Your task to perform on an android device: Open calendar and show me the fourth week of next month Image 0: 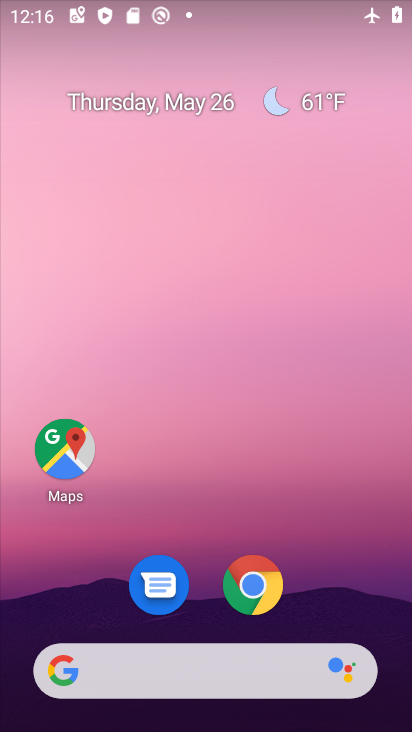
Step 0: drag from (265, 507) to (318, 53)
Your task to perform on an android device: Open calendar and show me the fourth week of next month Image 1: 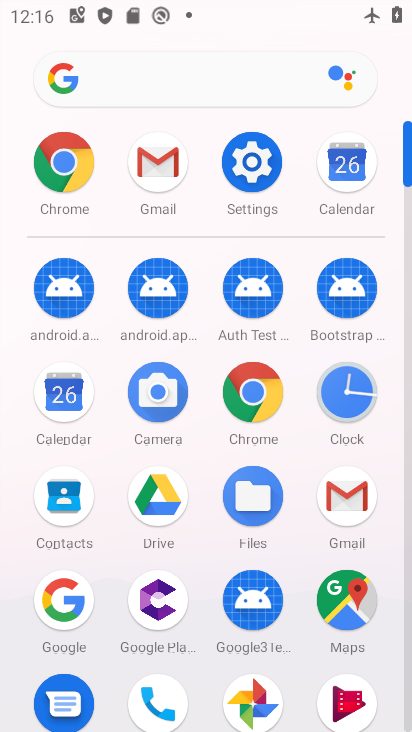
Step 1: click (344, 168)
Your task to perform on an android device: Open calendar and show me the fourth week of next month Image 2: 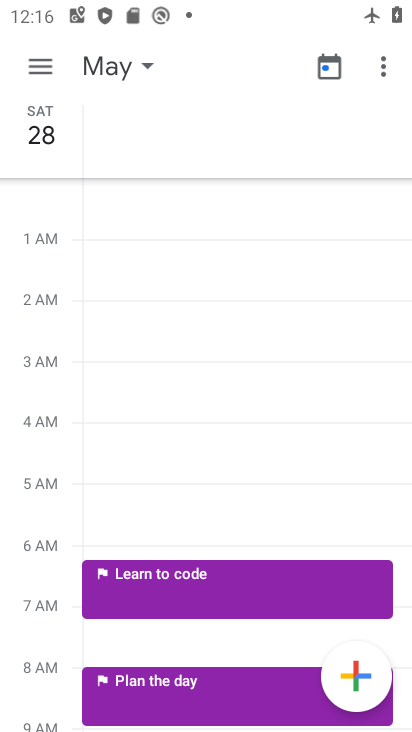
Step 2: click (46, 61)
Your task to perform on an android device: Open calendar and show me the fourth week of next month Image 3: 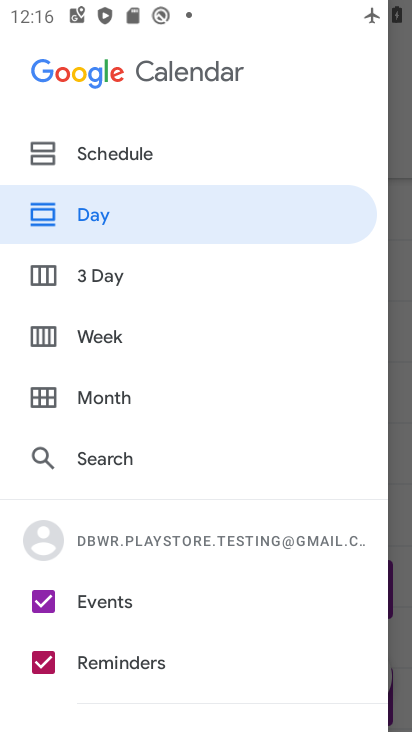
Step 3: click (100, 381)
Your task to perform on an android device: Open calendar and show me the fourth week of next month Image 4: 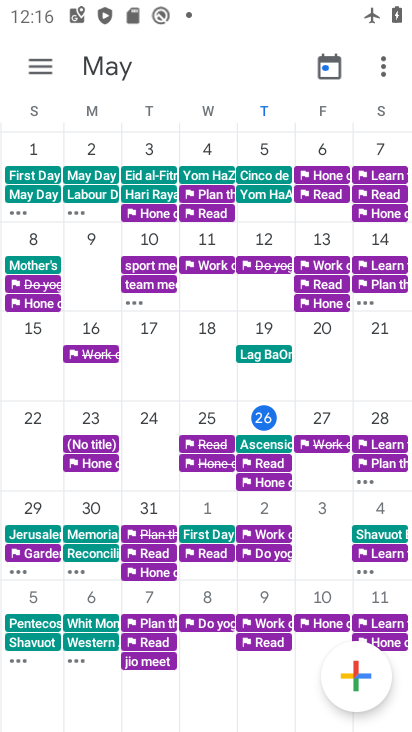
Step 4: drag from (361, 377) to (6, 329)
Your task to perform on an android device: Open calendar and show me the fourth week of next month Image 5: 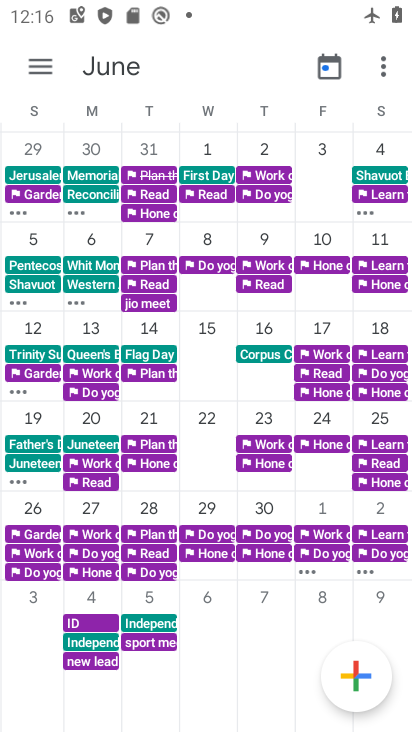
Step 5: click (39, 504)
Your task to perform on an android device: Open calendar and show me the fourth week of next month Image 6: 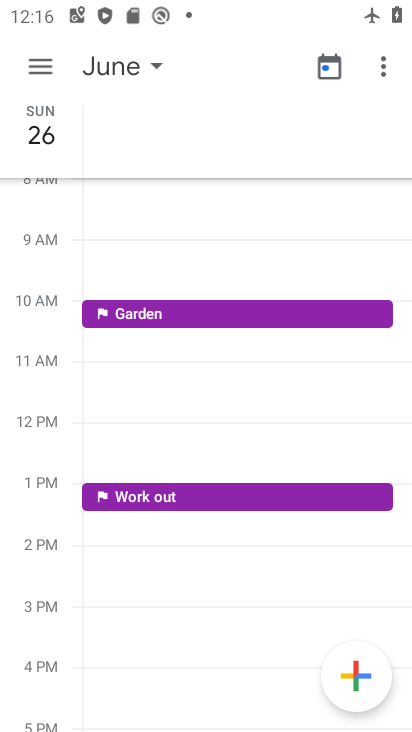
Step 6: click (33, 62)
Your task to perform on an android device: Open calendar and show me the fourth week of next month Image 7: 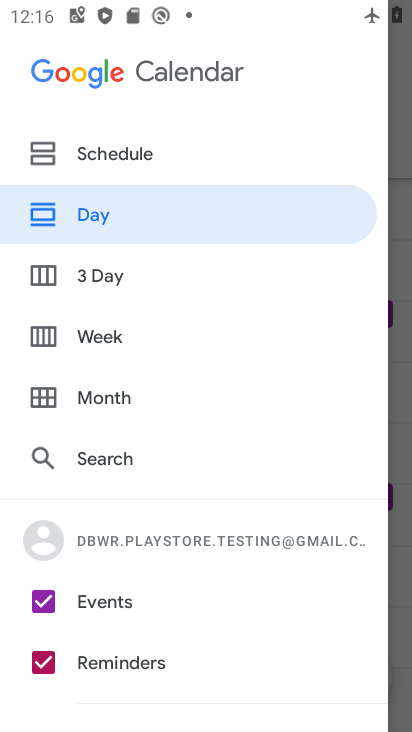
Step 7: click (92, 338)
Your task to perform on an android device: Open calendar and show me the fourth week of next month Image 8: 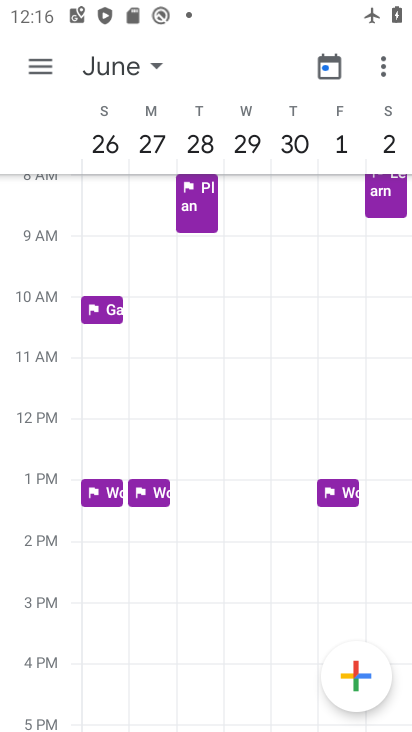
Step 8: task complete